Your task to perform on an android device: toggle notifications settings in the gmail app Image 0: 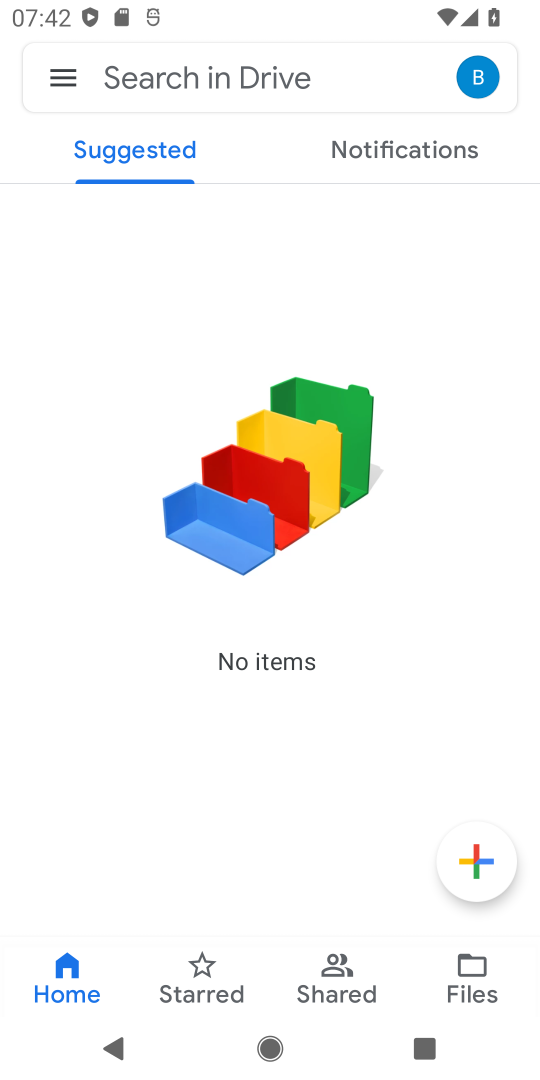
Step 0: press home button
Your task to perform on an android device: toggle notifications settings in the gmail app Image 1: 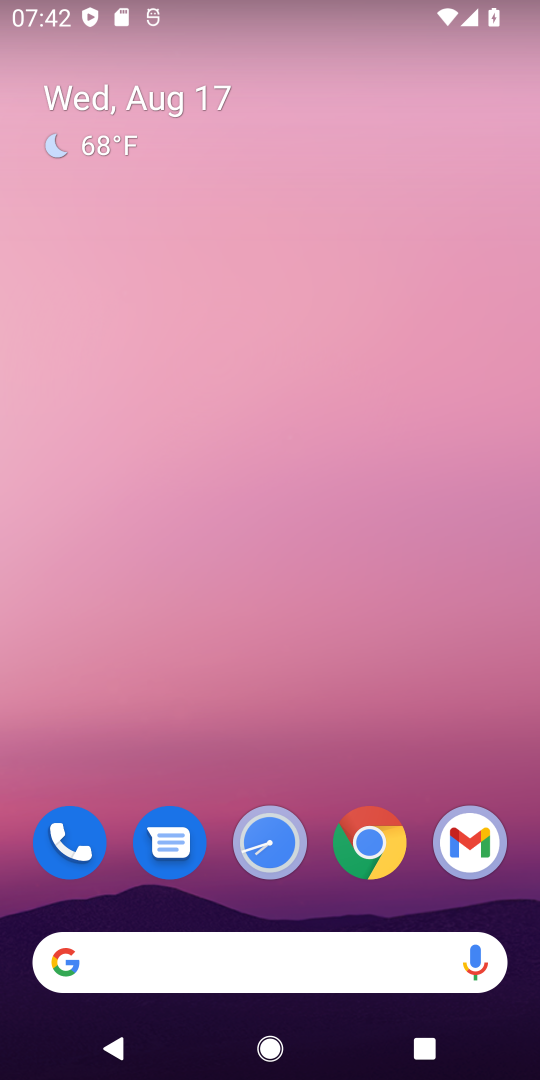
Step 1: click (468, 833)
Your task to perform on an android device: toggle notifications settings in the gmail app Image 2: 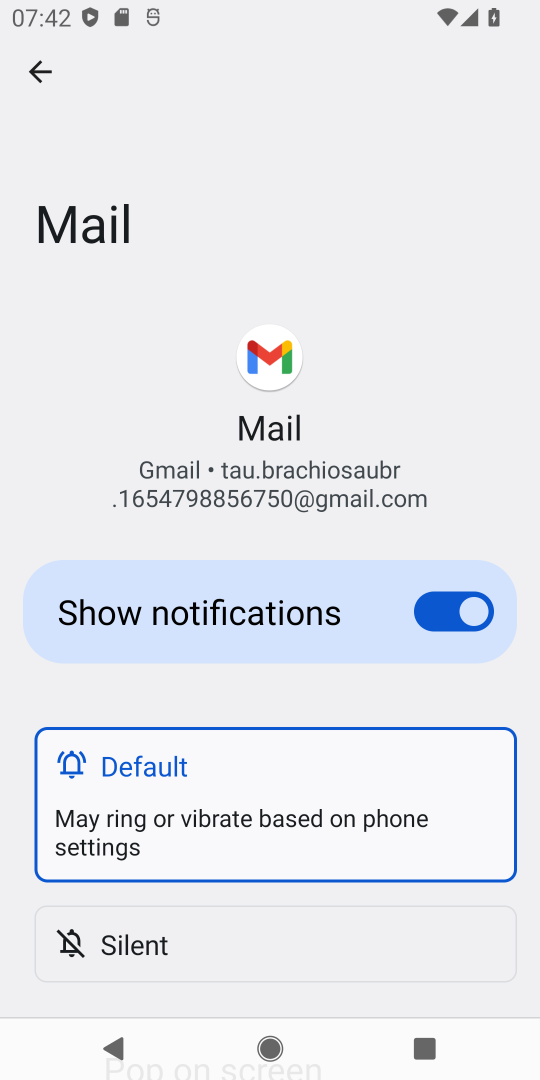
Step 2: click (461, 615)
Your task to perform on an android device: toggle notifications settings in the gmail app Image 3: 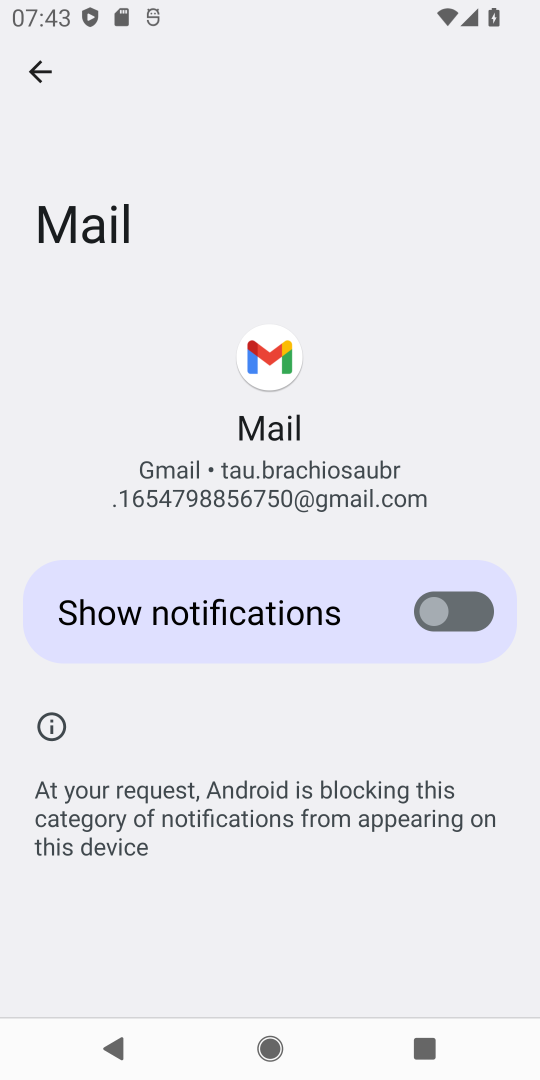
Step 3: task complete